Your task to perform on an android device: Open ESPN.com Image 0: 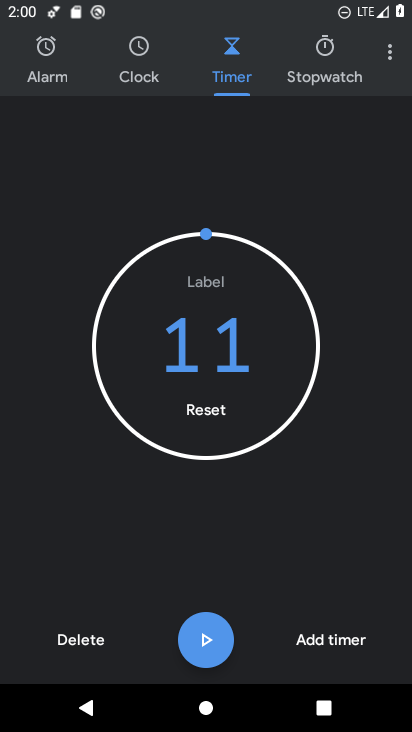
Step 0: press home button
Your task to perform on an android device: Open ESPN.com Image 1: 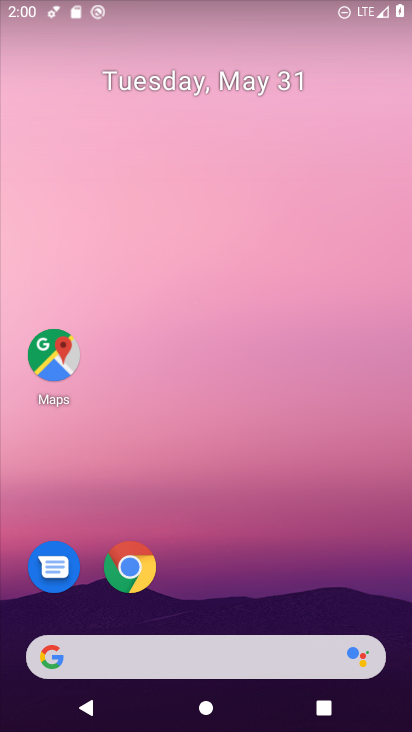
Step 1: click (122, 576)
Your task to perform on an android device: Open ESPN.com Image 2: 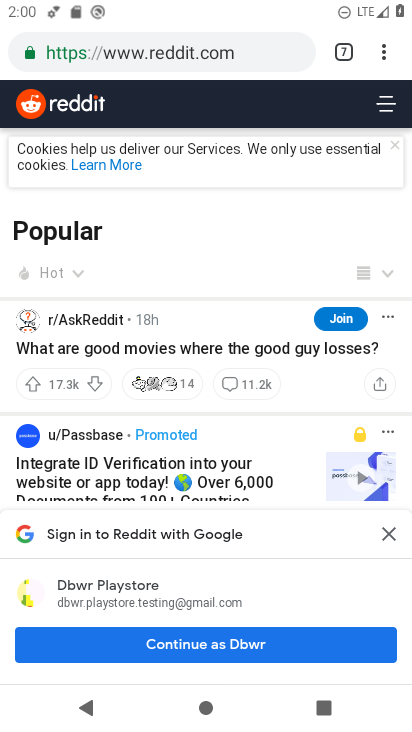
Step 2: click (334, 52)
Your task to perform on an android device: Open ESPN.com Image 3: 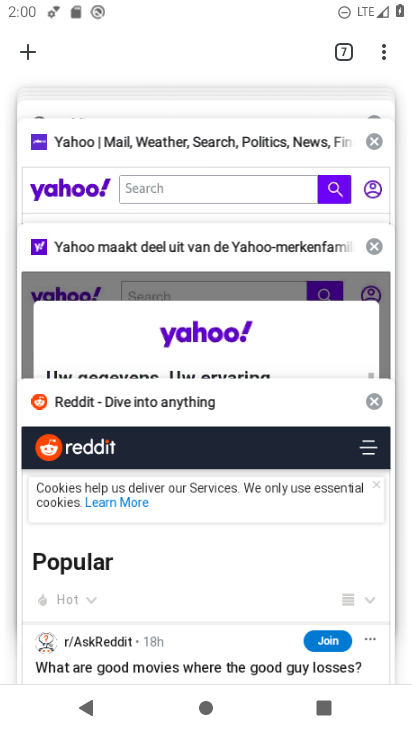
Step 3: drag from (157, 185) to (182, 484)
Your task to perform on an android device: Open ESPN.com Image 4: 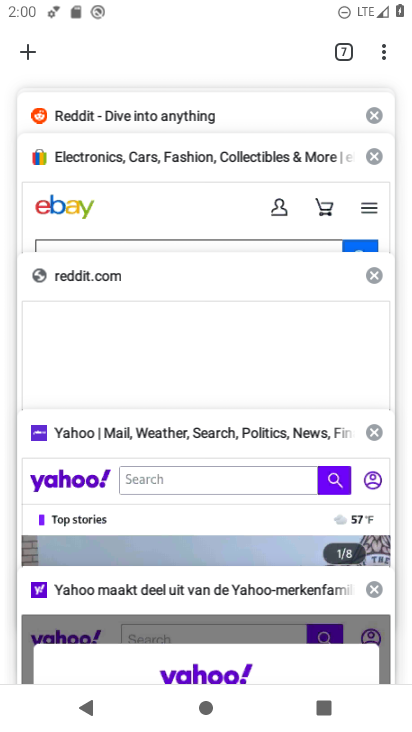
Step 4: drag from (171, 168) to (171, 403)
Your task to perform on an android device: Open ESPN.com Image 5: 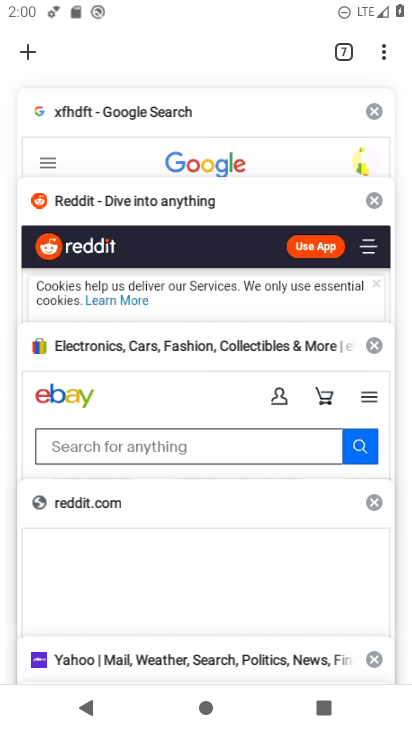
Step 5: drag from (152, 174) to (194, 484)
Your task to perform on an android device: Open ESPN.com Image 6: 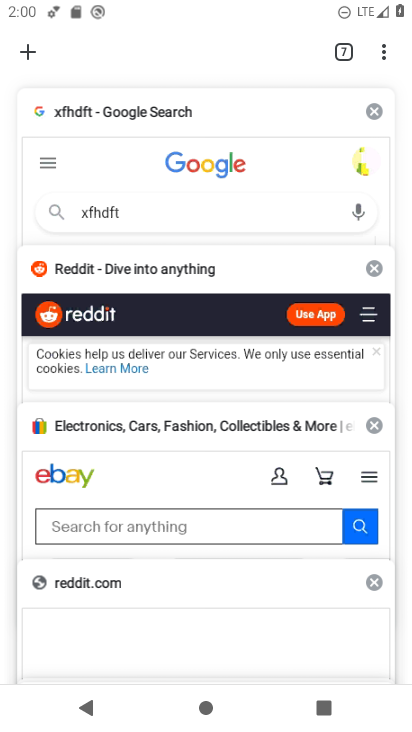
Step 6: click (37, 50)
Your task to perform on an android device: Open ESPN.com Image 7: 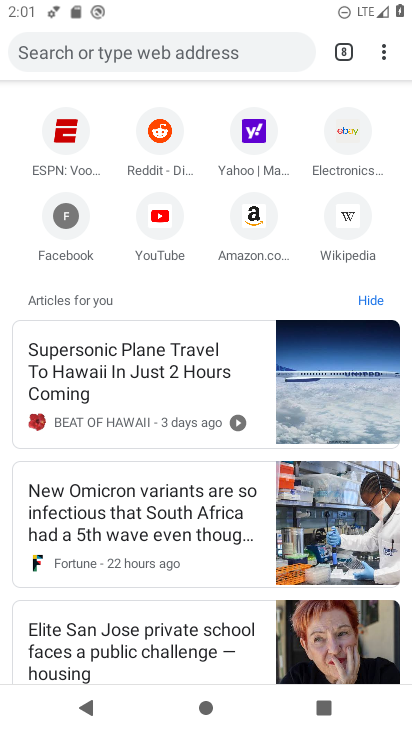
Step 7: click (130, 57)
Your task to perform on an android device: Open ESPN.com Image 8: 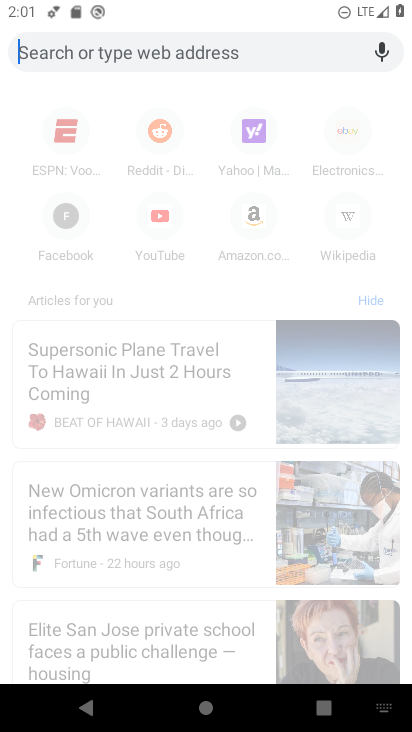
Step 8: click (73, 139)
Your task to perform on an android device: Open ESPN.com Image 9: 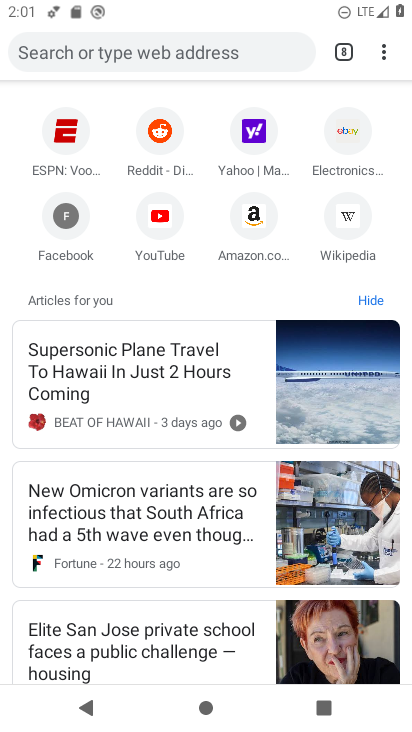
Step 9: click (73, 139)
Your task to perform on an android device: Open ESPN.com Image 10: 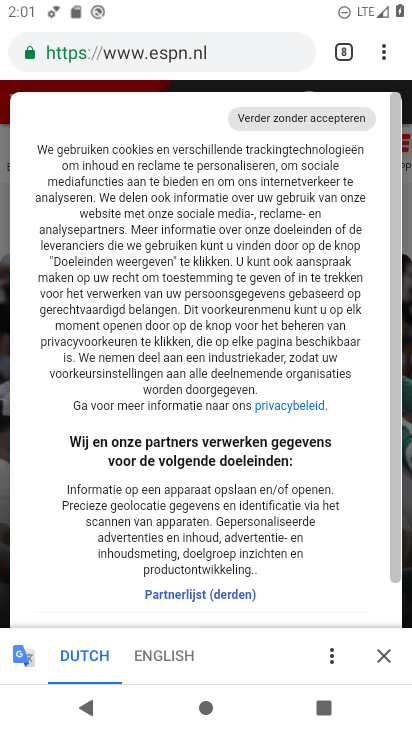
Step 10: task complete